Your task to perform on an android device: turn off priority inbox in the gmail app Image 0: 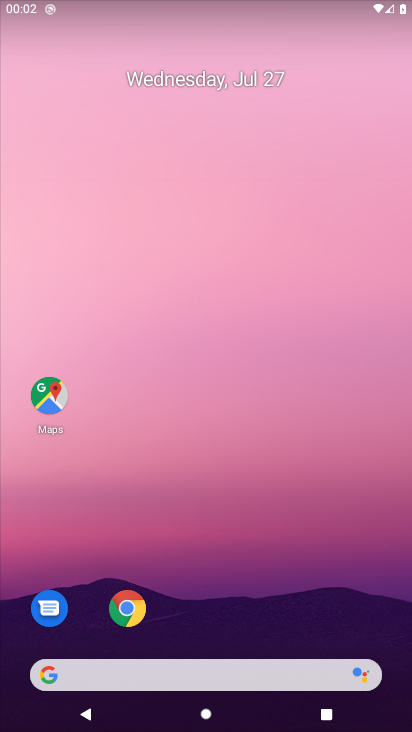
Step 0: drag from (302, 606) to (380, 30)
Your task to perform on an android device: turn off priority inbox in the gmail app Image 1: 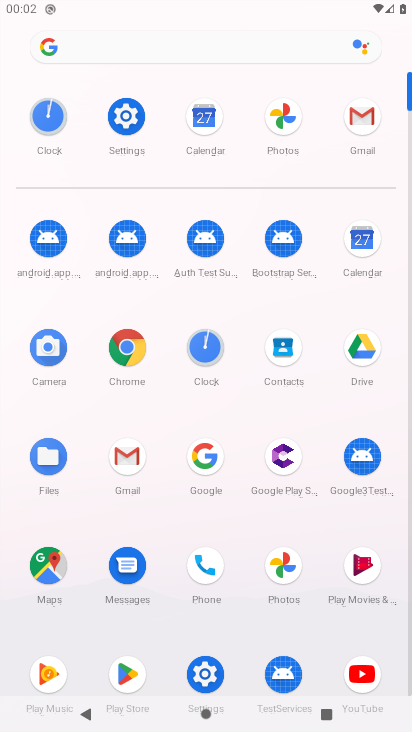
Step 1: click (355, 110)
Your task to perform on an android device: turn off priority inbox in the gmail app Image 2: 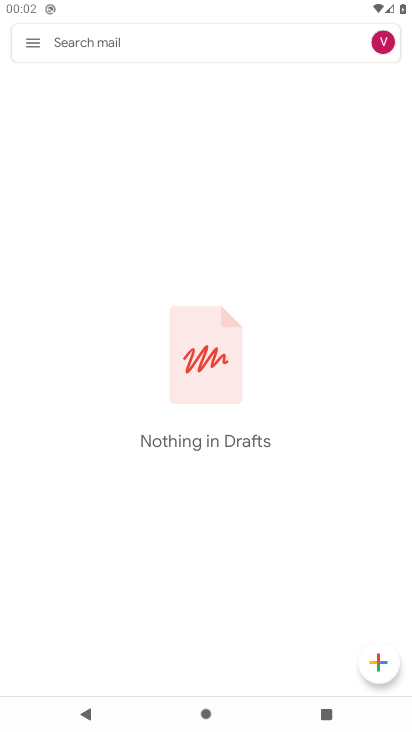
Step 2: click (33, 34)
Your task to perform on an android device: turn off priority inbox in the gmail app Image 3: 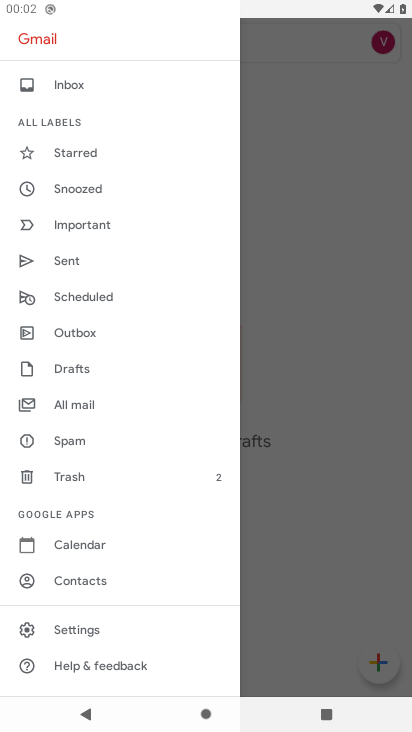
Step 3: click (75, 625)
Your task to perform on an android device: turn off priority inbox in the gmail app Image 4: 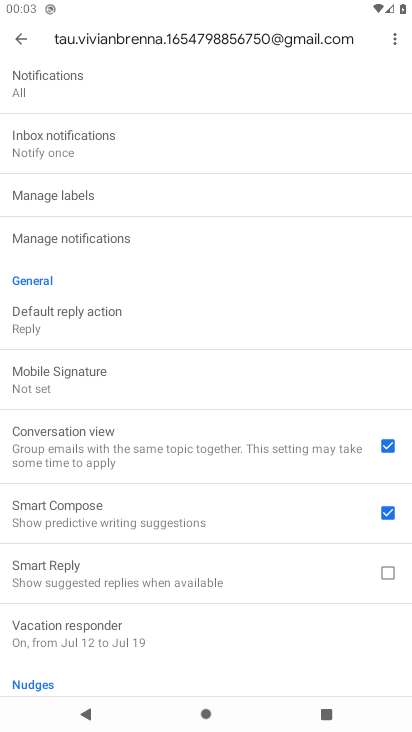
Step 4: drag from (161, 93) to (91, 717)
Your task to perform on an android device: turn off priority inbox in the gmail app Image 5: 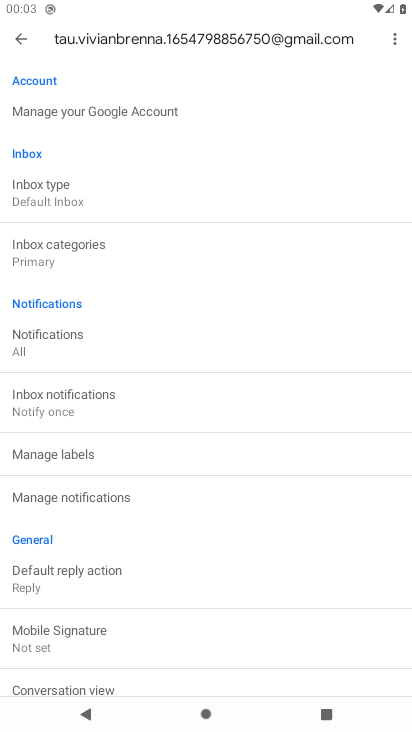
Step 5: click (53, 182)
Your task to perform on an android device: turn off priority inbox in the gmail app Image 6: 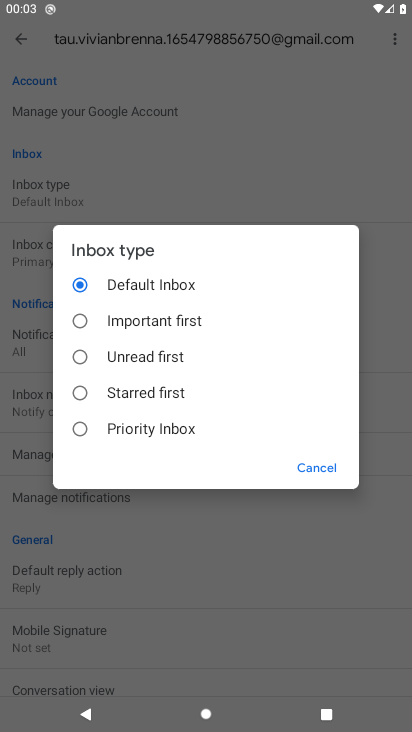
Step 6: task complete